Your task to perform on an android device: Go to location settings Image 0: 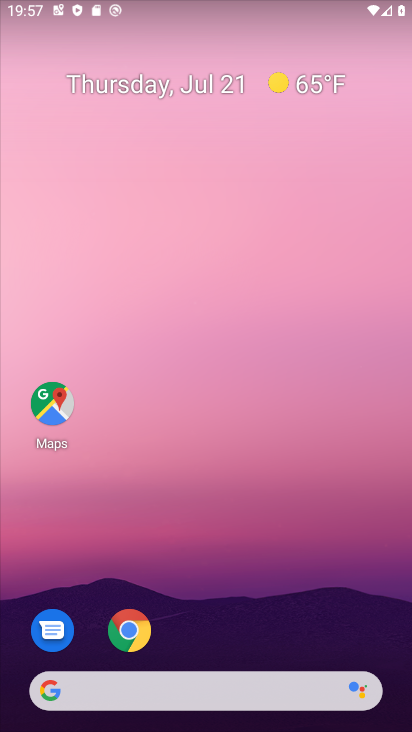
Step 0: drag from (285, 730) to (189, 0)
Your task to perform on an android device: Go to location settings Image 1: 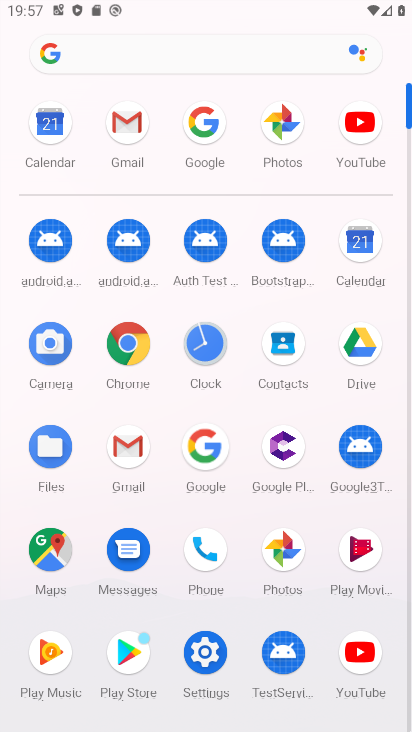
Step 1: click (186, 638)
Your task to perform on an android device: Go to location settings Image 2: 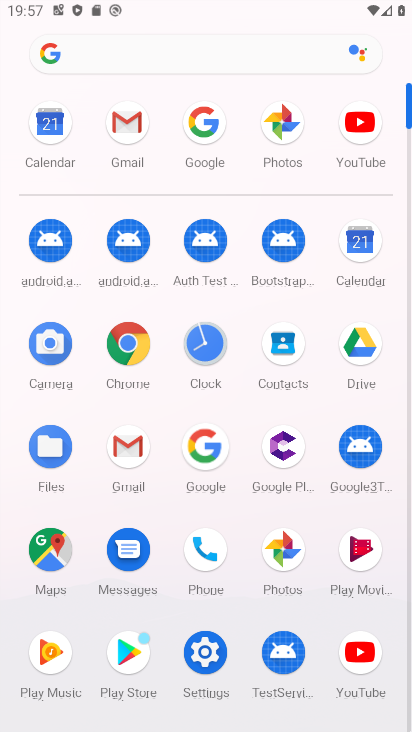
Step 2: click (186, 638)
Your task to perform on an android device: Go to location settings Image 3: 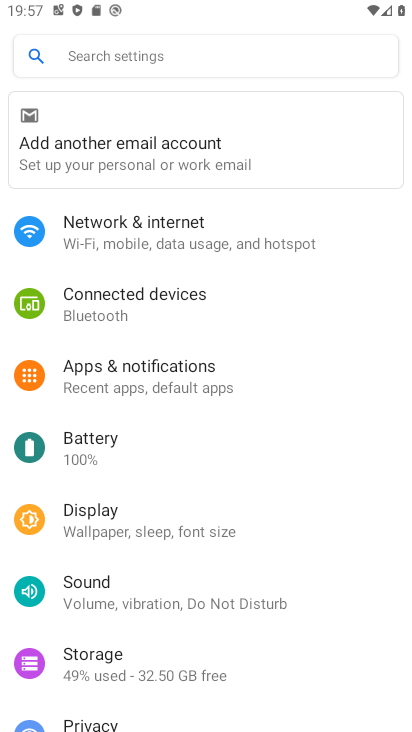
Step 3: drag from (173, 586) to (287, 14)
Your task to perform on an android device: Go to location settings Image 4: 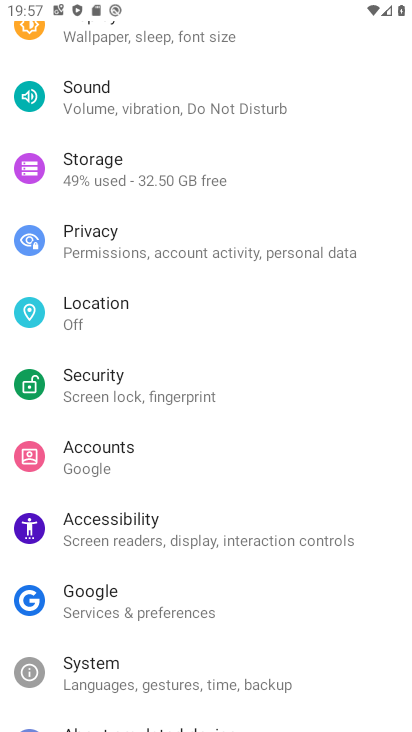
Step 4: click (145, 319)
Your task to perform on an android device: Go to location settings Image 5: 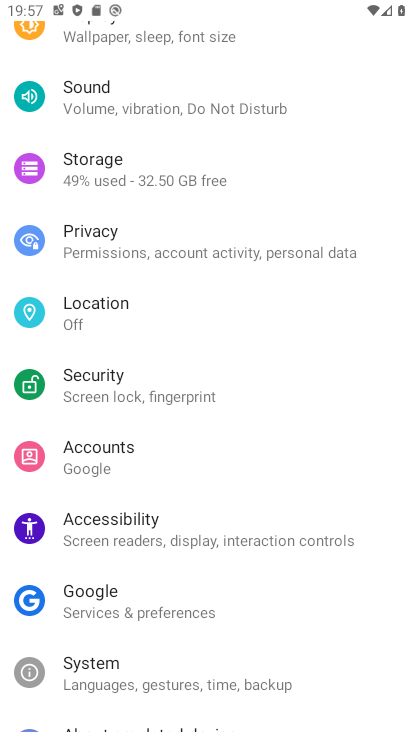
Step 5: click (145, 319)
Your task to perform on an android device: Go to location settings Image 6: 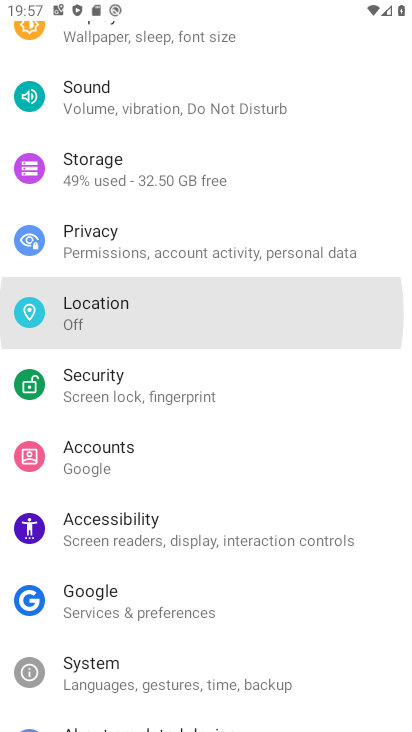
Step 6: click (145, 319)
Your task to perform on an android device: Go to location settings Image 7: 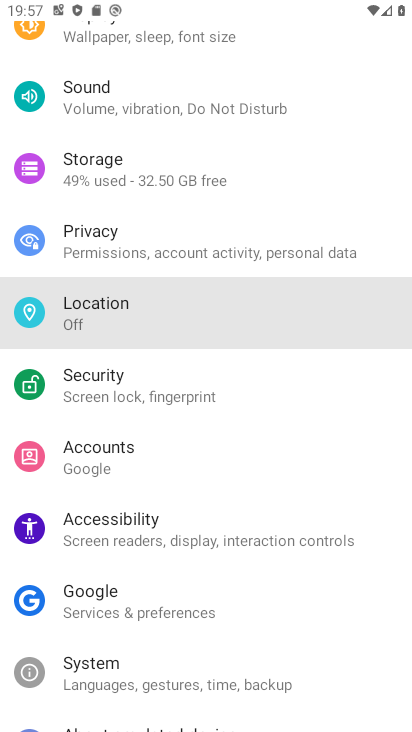
Step 7: click (145, 319)
Your task to perform on an android device: Go to location settings Image 8: 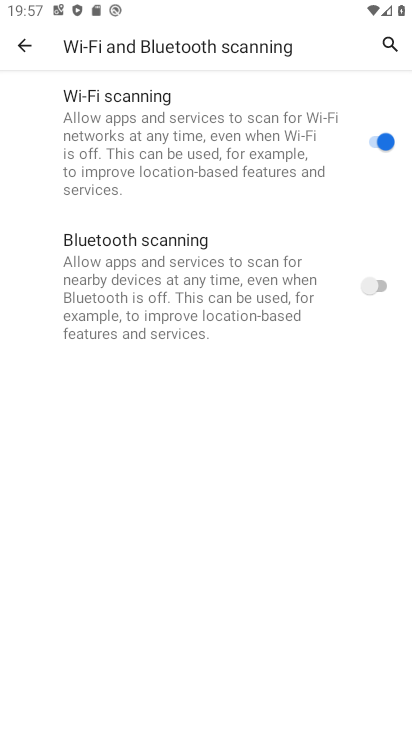
Step 8: click (24, 48)
Your task to perform on an android device: Go to location settings Image 9: 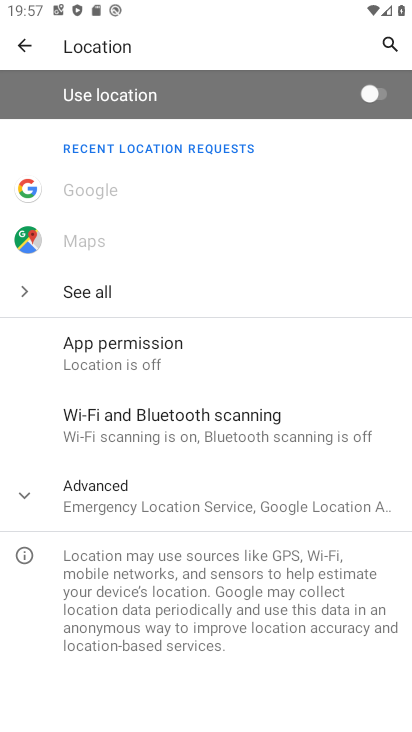
Step 9: task complete